Your task to perform on an android device: turn on the 12-hour format for clock Image 0: 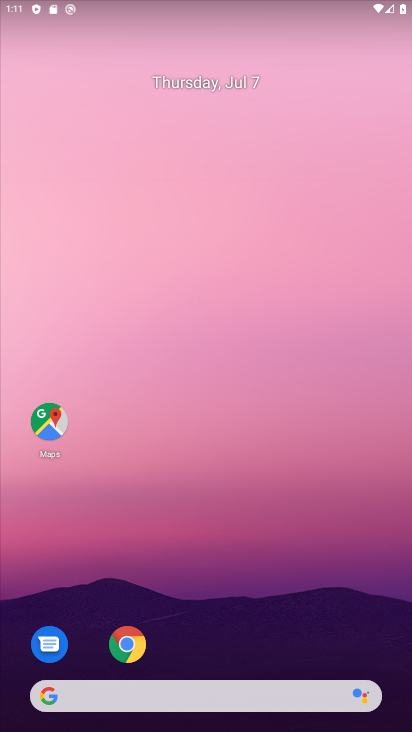
Step 0: drag from (208, 717) to (197, 179)
Your task to perform on an android device: turn on the 12-hour format for clock Image 1: 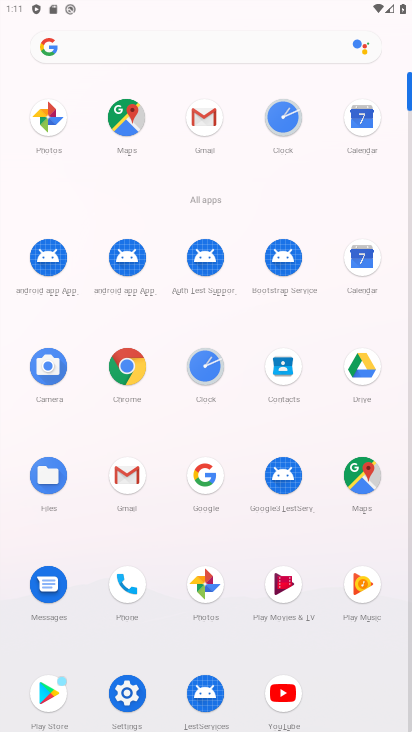
Step 1: click (209, 361)
Your task to perform on an android device: turn on the 12-hour format for clock Image 2: 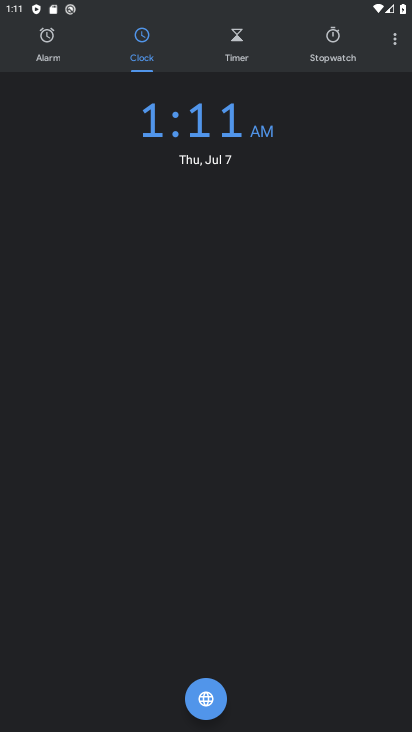
Step 2: click (399, 39)
Your task to perform on an android device: turn on the 12-hour format for clock Image 3: 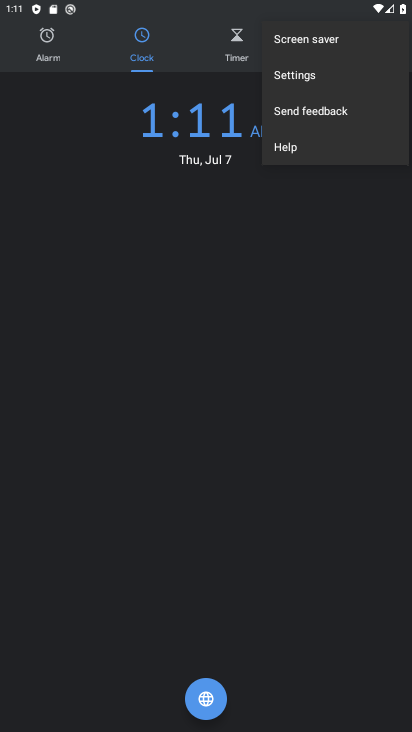
Step 3: click (300, 73)
Your task to perform on an android device: turn on the 12-hour format for clock Image 4: 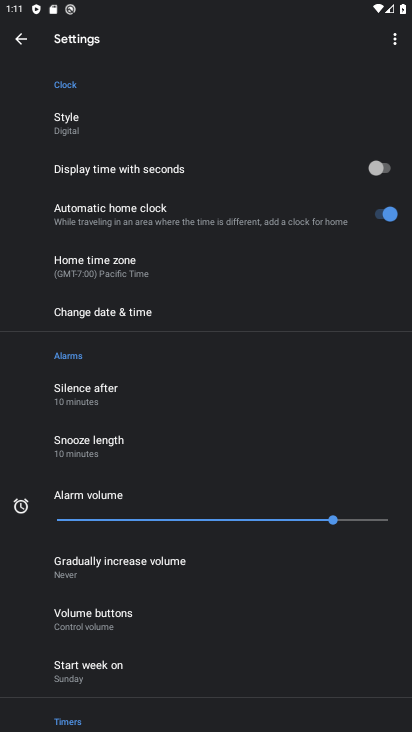
Step 4: click (105, 312)
Your task to perform on an android device: turn on the 12-hour format for clock Image 5: 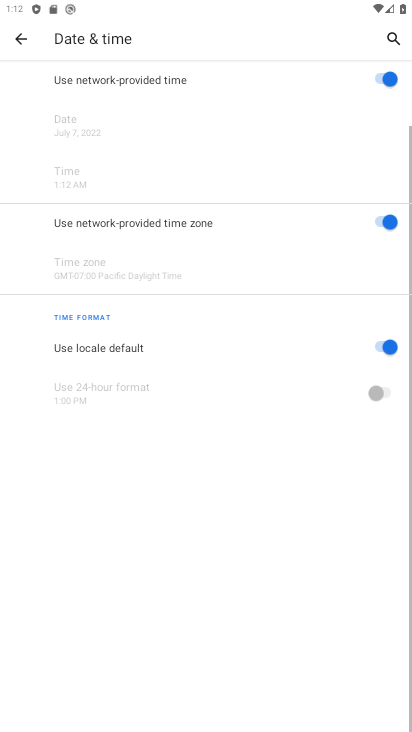
Step 5: task complete